Your task to perform on an android device: Open the stopwatch Image 0: 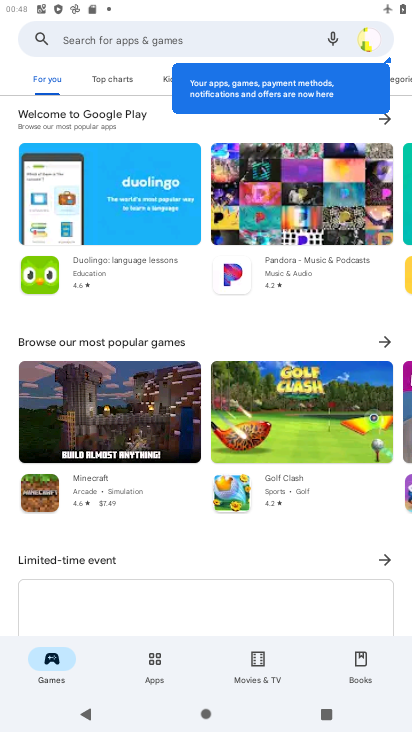
Step 0: press home button
Your task to perform on an android device: Open the stopwatch Image 1: 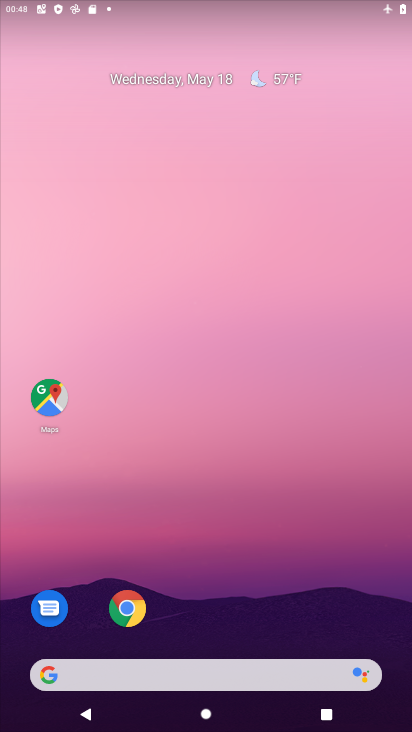
Step 1: drag from (236, 524) to (126, 68)
Your task to perform on an android device: Open the stopwatch Image 2: 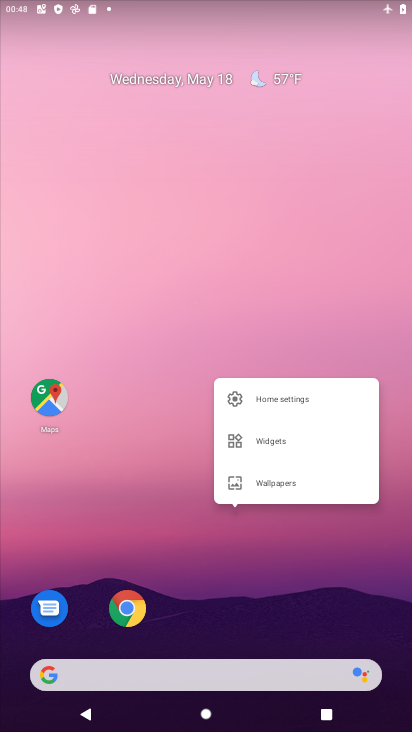
Step 2: click (81, 382)
Your task to perform on an android device: Open the stopwatch Image 3: 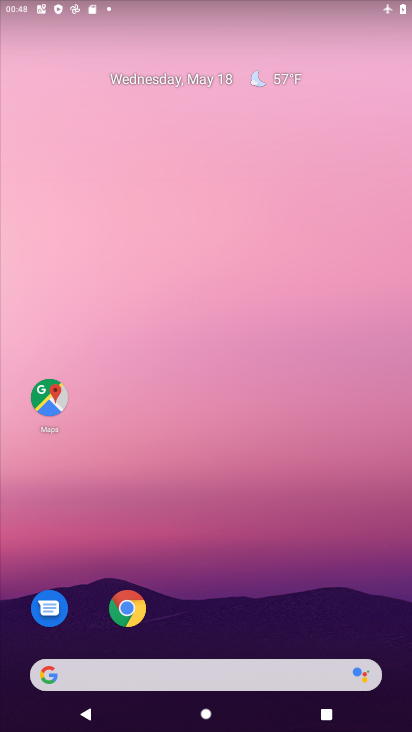
Step 3: drag from (270, 577) to (212, 144)
Your task to perform on an android device: Open the stopwatch Image 4: 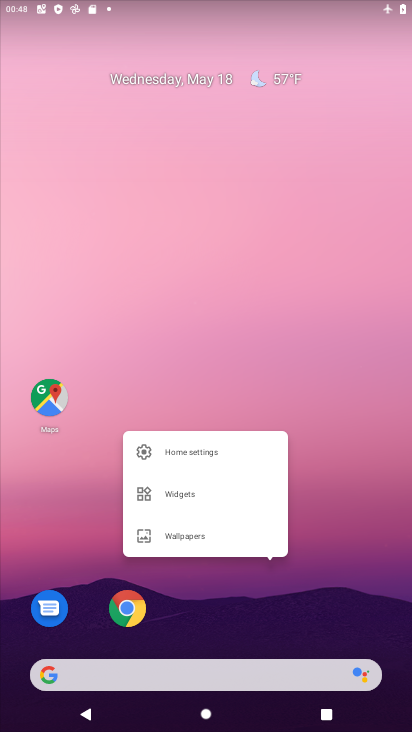
Step 4: click (315, 254)
Your task to perform on an android device: Open the stopwatch Image 5: 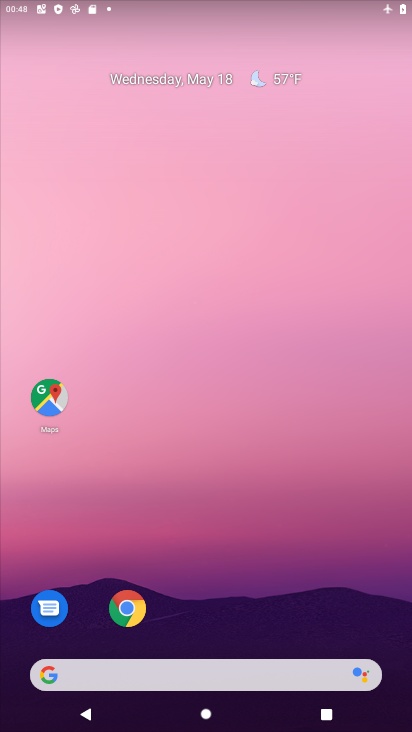
Step 5: drag from (268, 556) to (228, 138)
Your task to perform on an android device: Open the stopwatch Image 6: 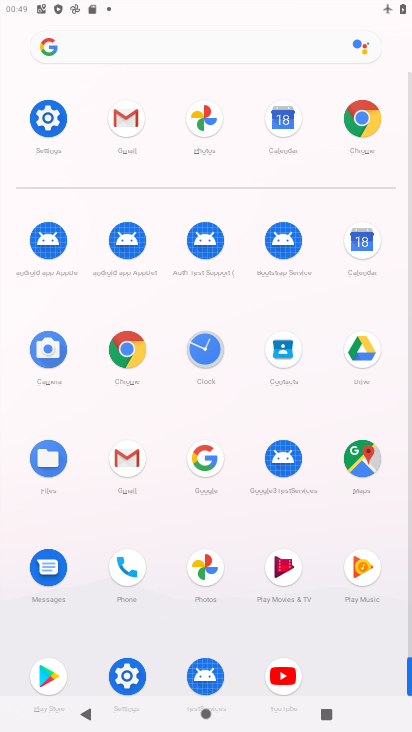
Step 6: click (209, 347)
Your task to perform on an android device: Open the stopwatch Image 7: 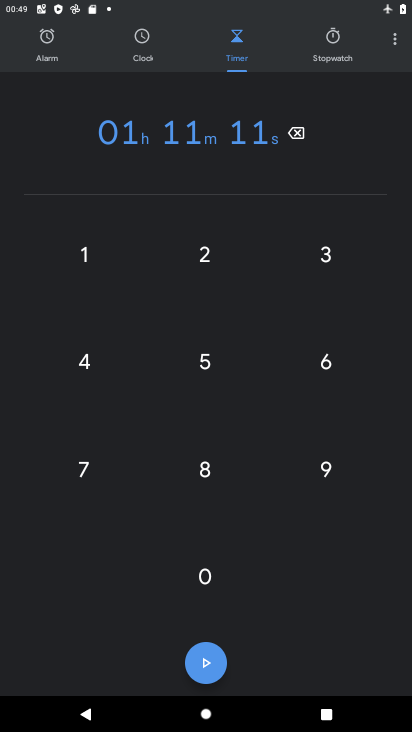
Step 7: click (332, 38)
Your task to perform on an android device: Open the stopwatch Image 8: 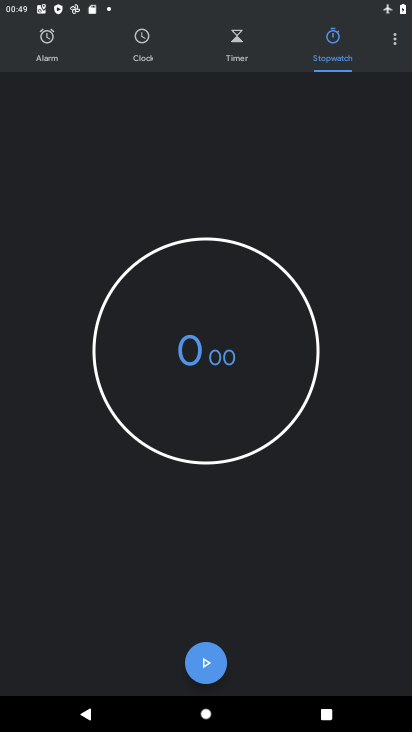
Step 8: task complete